Your task to perform on an android device: When is my next meeting? Image 0: 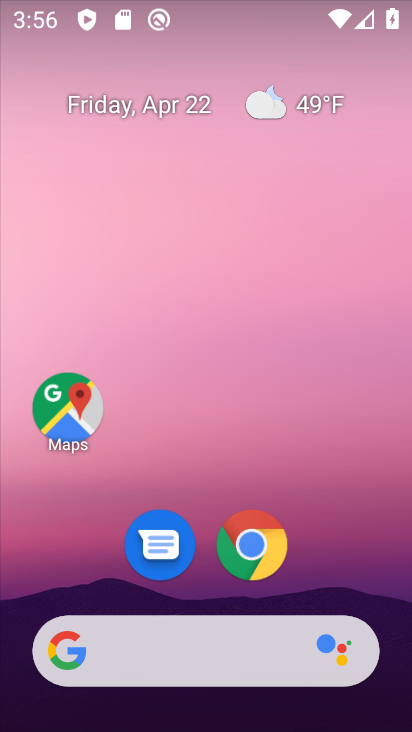
Step 0: drag from (375, 526) to (380, 56)
Your task to perform on an android device: When is my next meeting? Image 1: 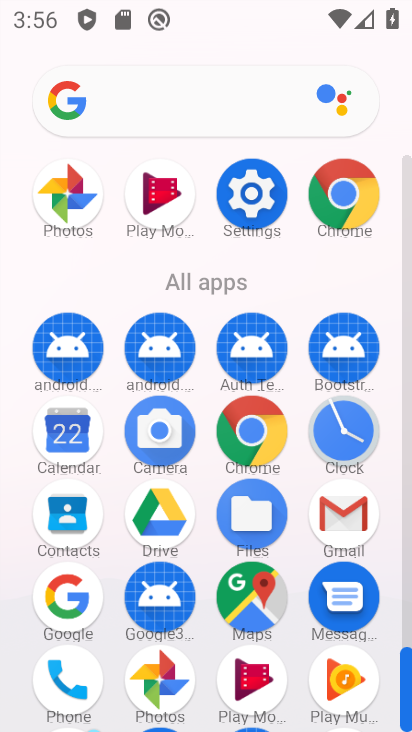
Step 1: click (58, 430)
Your task to perform on an android device: When is my next meeting? Image 2: 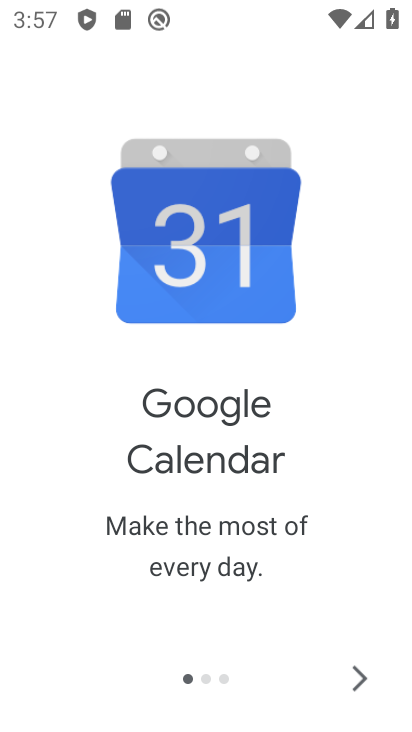
Step 2: click (377, 666)
Your task to perform on an android device: When is my next meeting? Image 3: 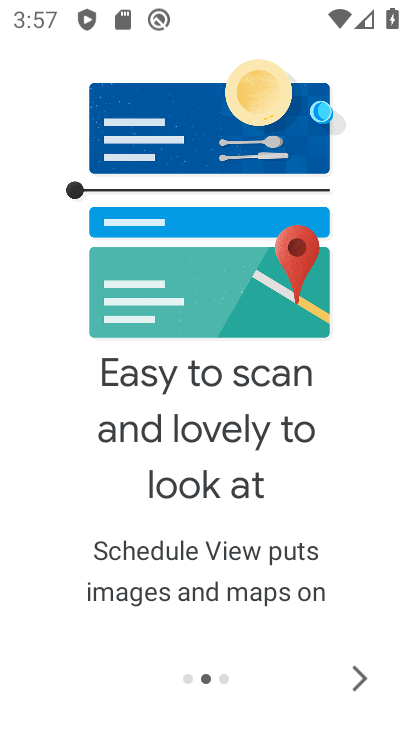
Step 3: click (368, 675)
Your task to perform on an android device: When is my next meeting? Image 4: 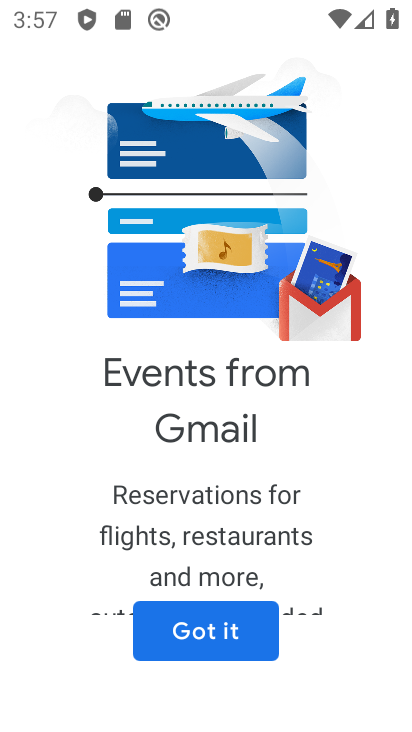
Step 4: click (254, 621)
Your task to perform on an android device: When is my next meeting? Image 5: 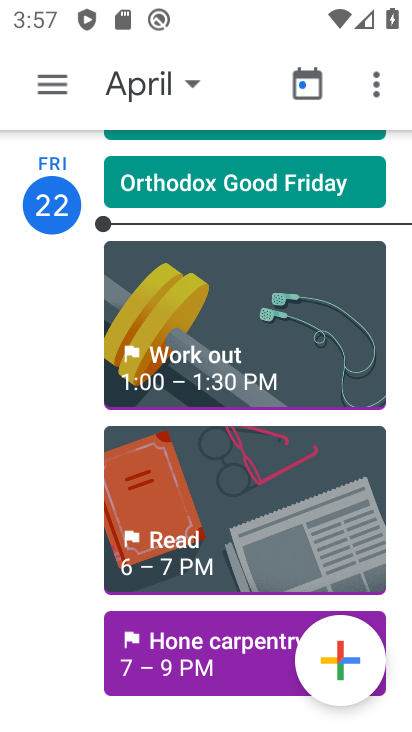
Step 5: click (180, 85)
Your task to perform on an android device: When is my next meeting? Image 6: 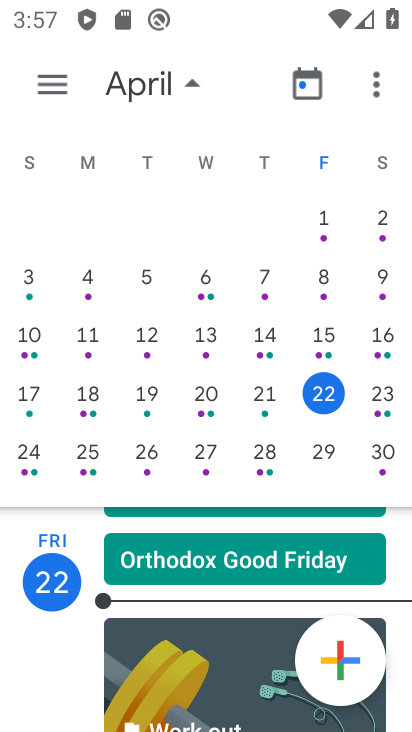
Step 6: click (378, 404)
Your task to perform on an android device: When is my next meeting? Image 7: 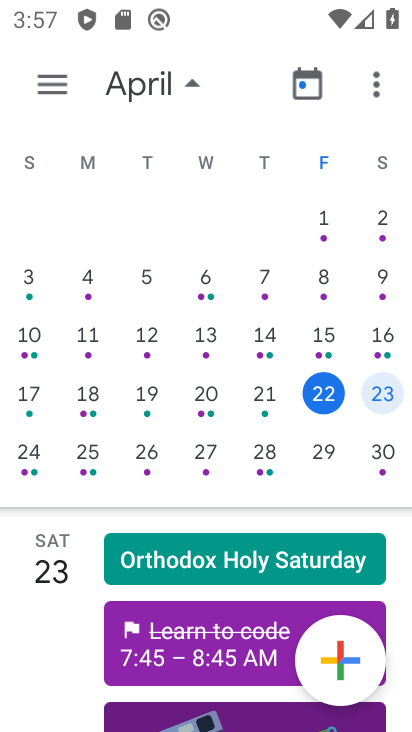
Step 7: task complete